Your task to perform on an android device: Open privacy settings Image 0: 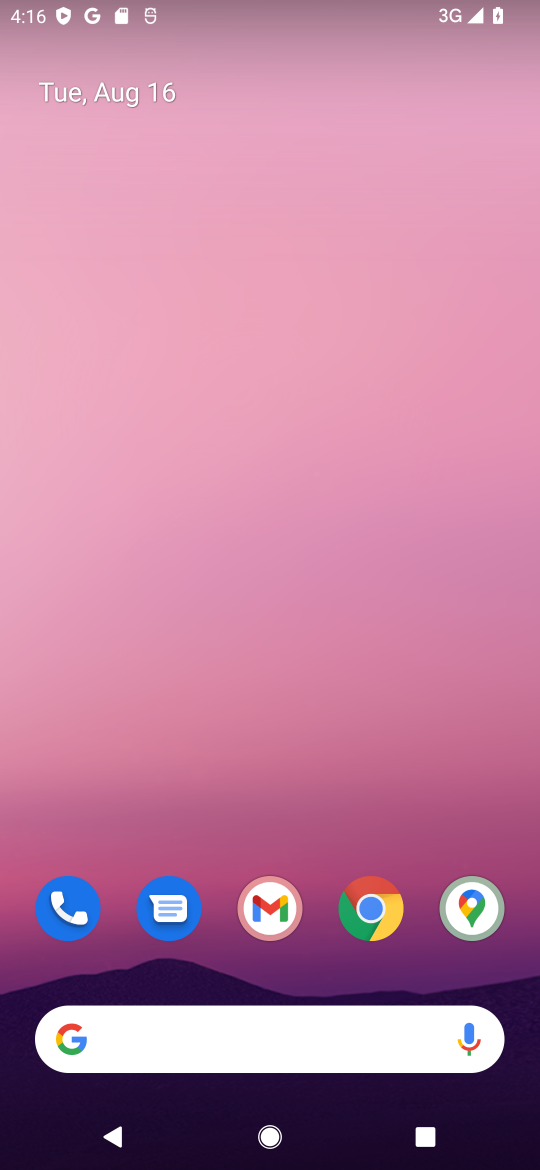
Step 0: drag from (288, 721) to (351, 71)
Your task to perform on an android device: Open privacy settings Image 1: 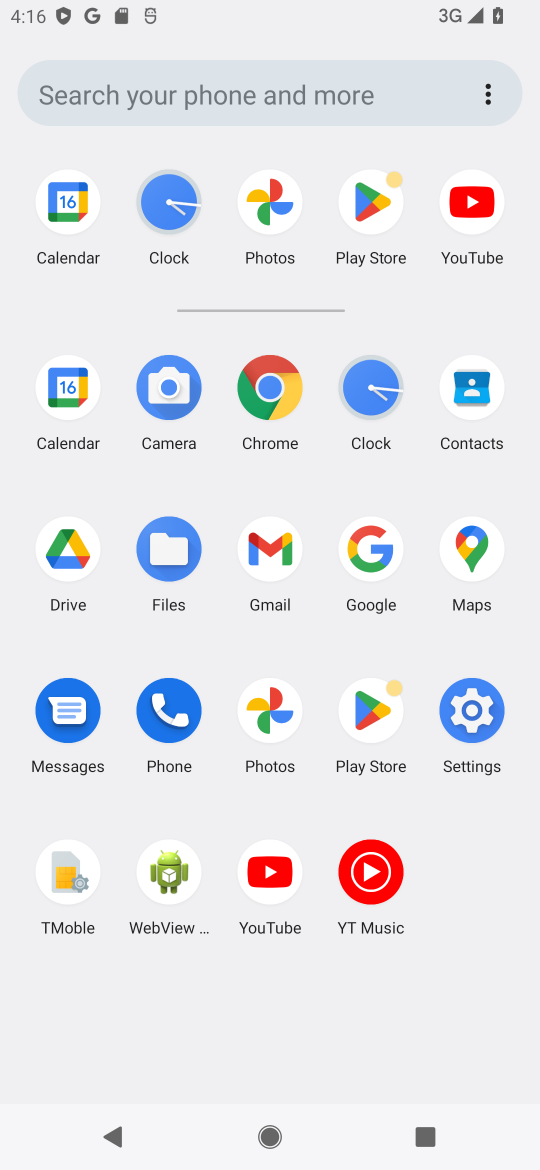
Step 1: click (470, 706)
Your task to perform on an android device: Open privacy settings Image 2: 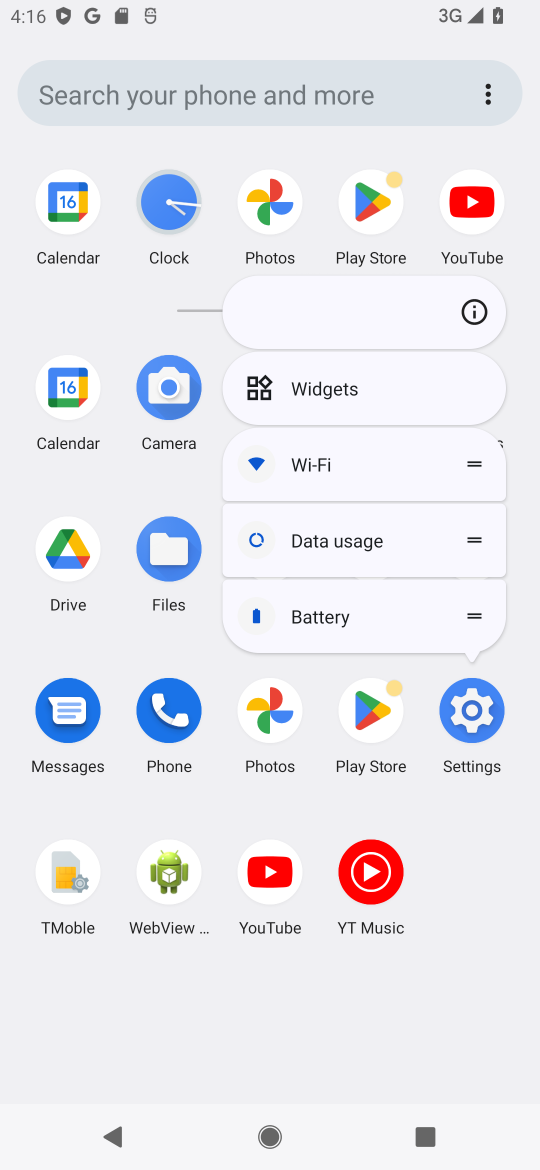
Step 2: click (464, 713)
Your task to perform on an android device: Open privacy settings Image 3: 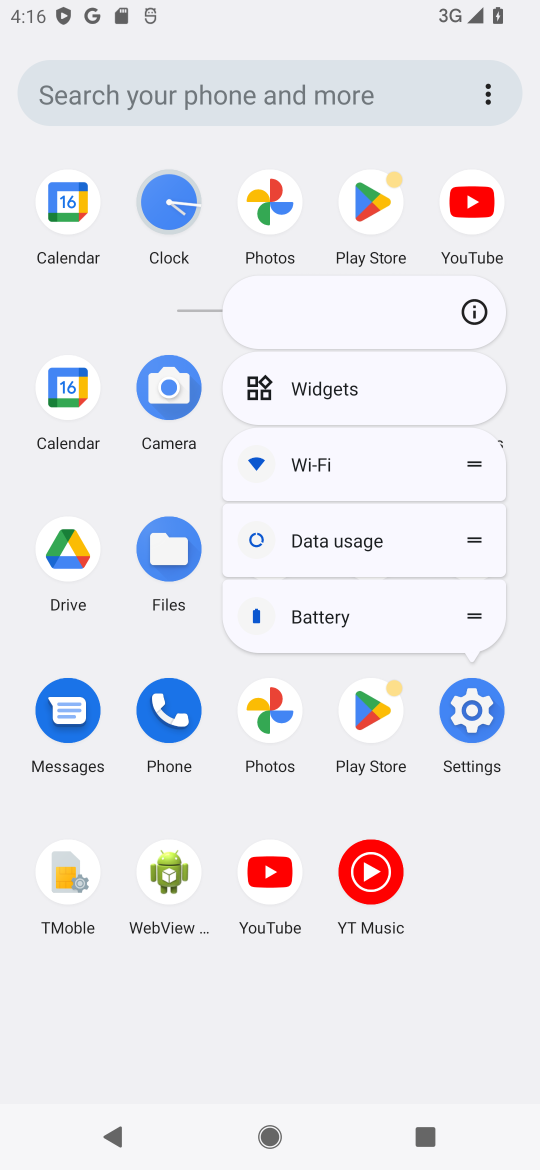
Step 3: click (476, 711)
Your task to perform on an android device: Open privacy settings Image 4: 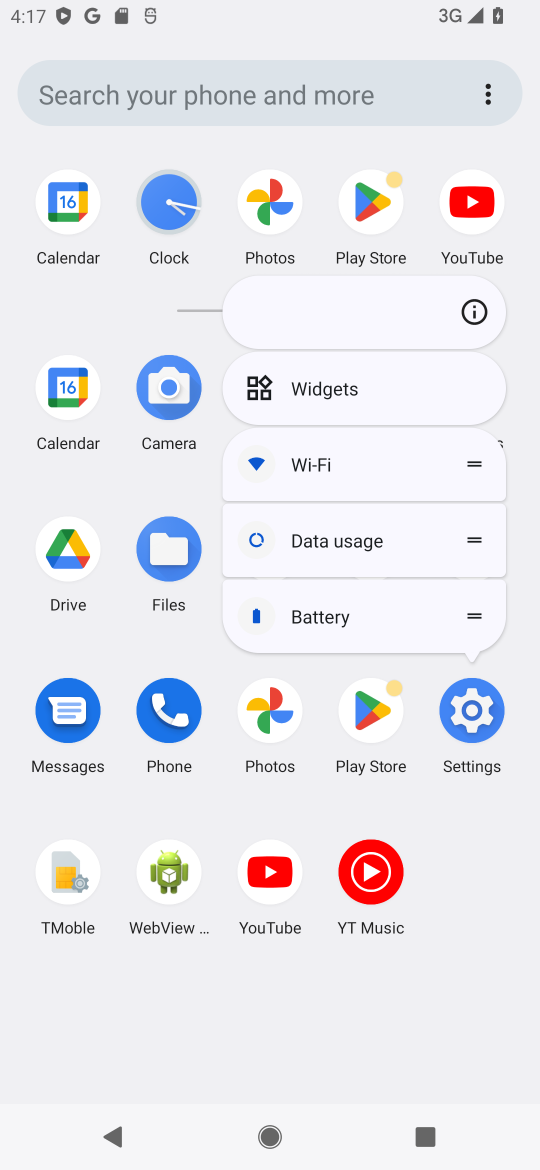
Step 4: click (476, 711)
Your task to perform on an android device: Open privacy settings Image 5: 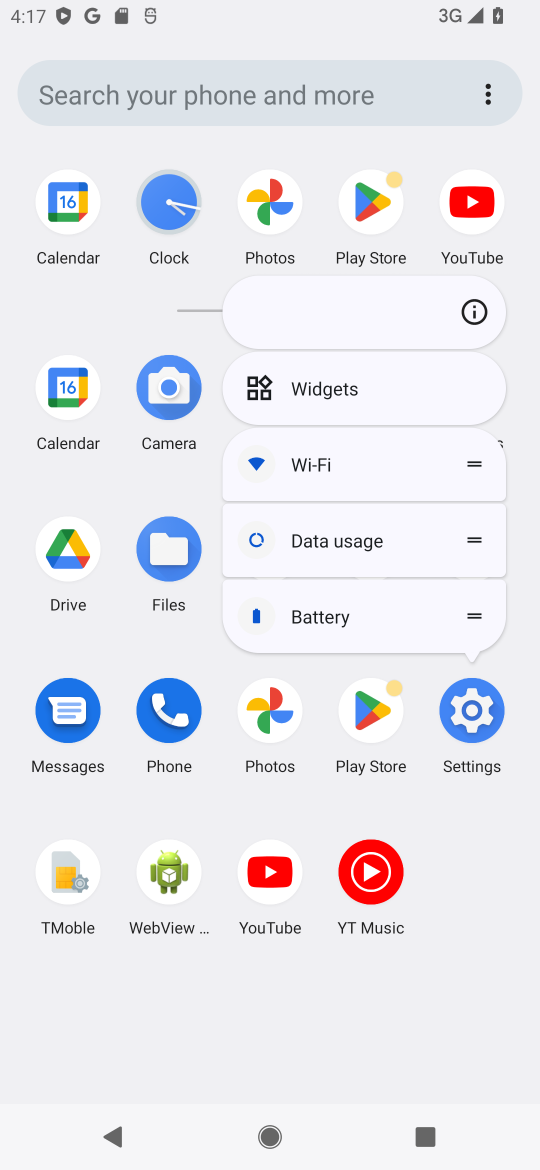
Step 5: click (488, 700)
Your task to perform on an android device: Open privacy settings Image 6: 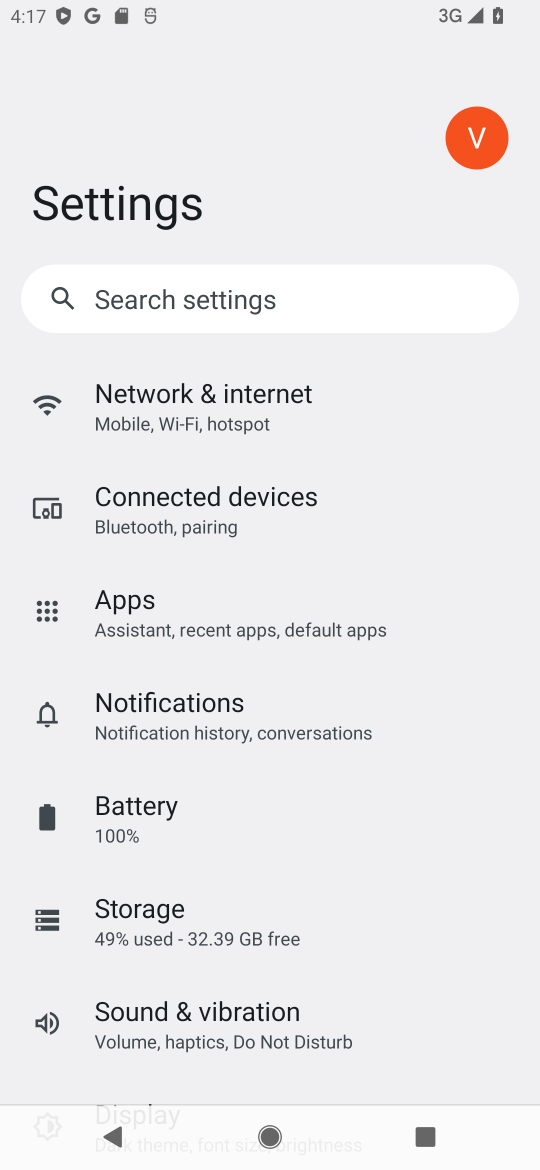
Step 6: drag from (218, 1016) to (303, 115)
Your task to perform on an android device: Open privacy settings Image 7: 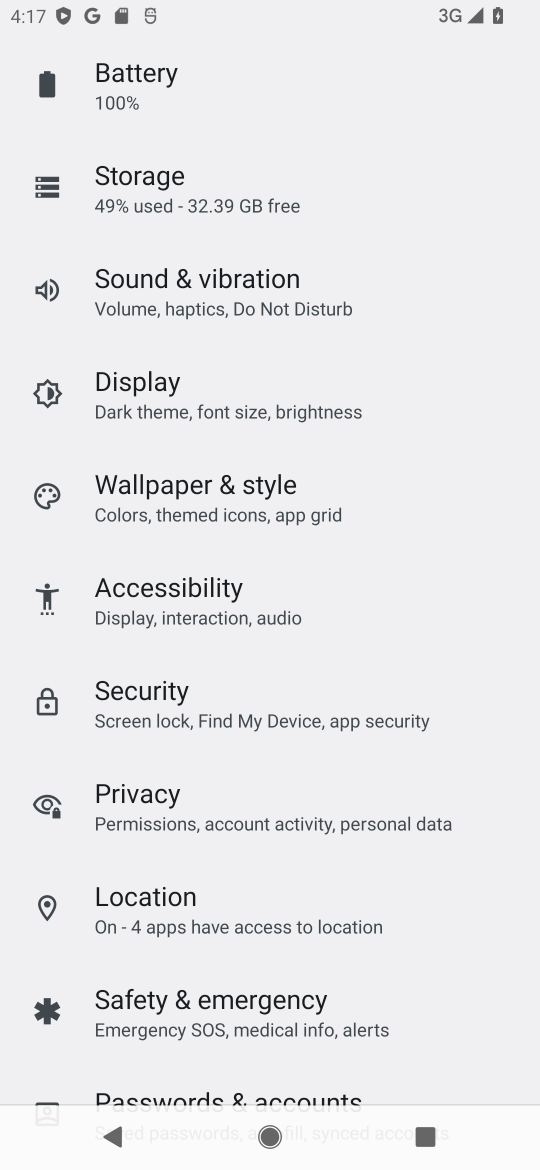
Step 7: click (154, 806)
Your task to perform on an android device: Open privacy settings Image 8: 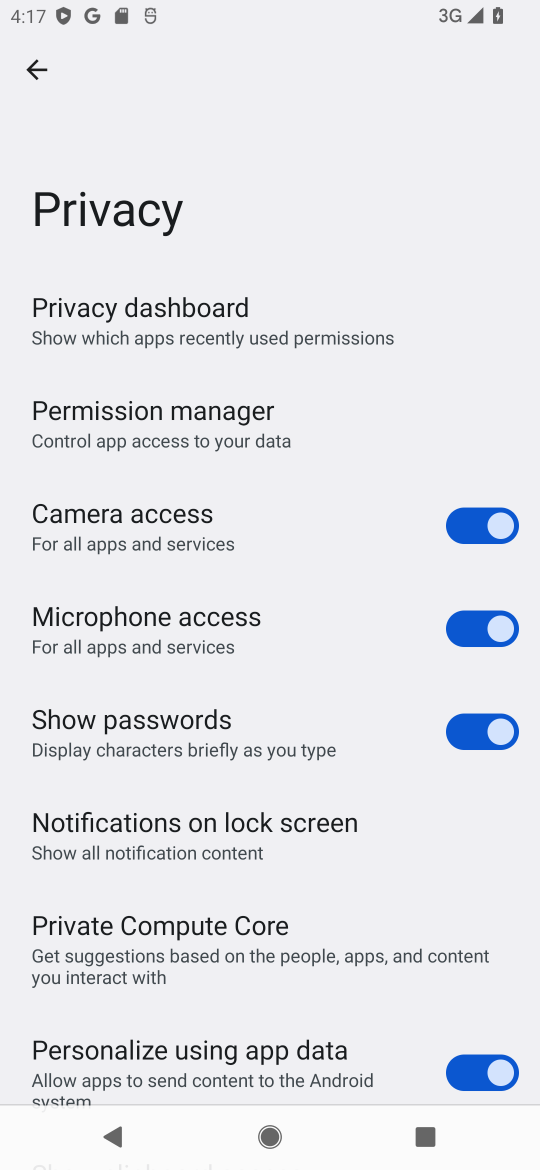
Step 8: task complete